Your task to perform on an android device: Open Yahoo.com Image 0: 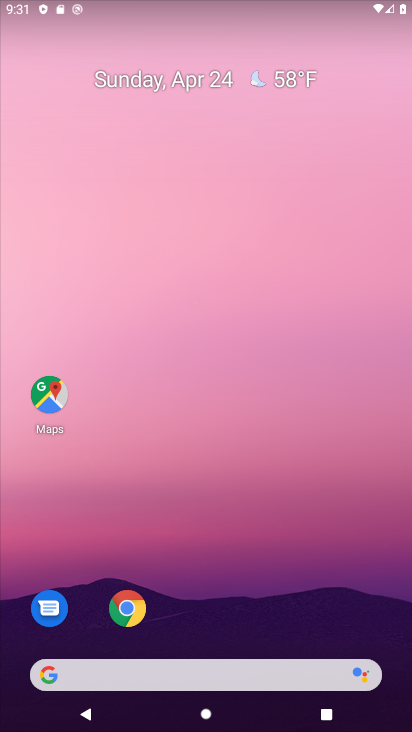
Step 0: drag from (294, 241) to (282, 15)
Your task to perform on an android device: Open Yahoo.com Image 1: 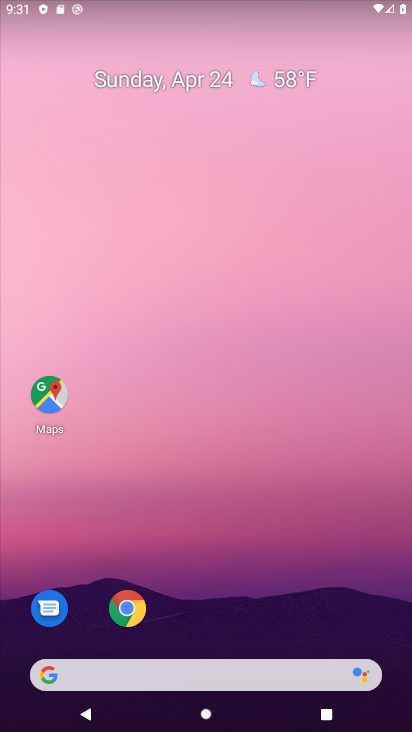
Step 1: drag from (270, 559) to (312, 121)
Your task to perform on an android device: Open Yahoo.com Image 2: 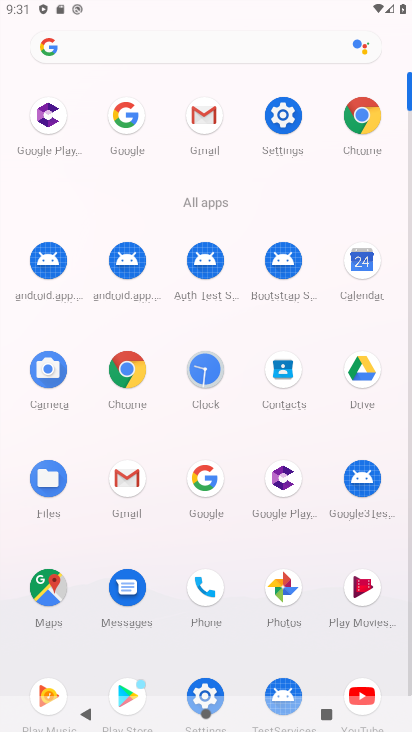
Step 2: click (363, 110)
Your task to perform on an android device: Open Yahoo.com Image 3: 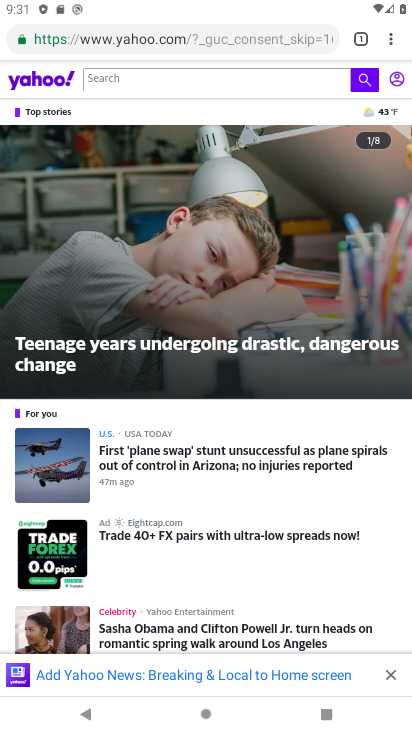
Step 3: task complete